Your task to perform on an android device: Go to Yahoo.com Image 0: 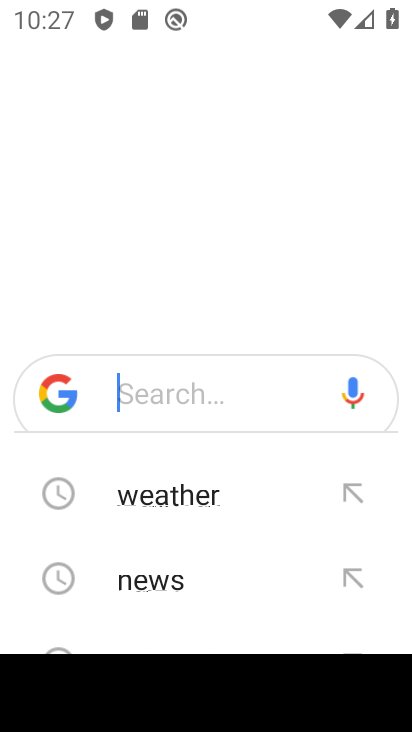
Step 0: type "yahoo.com"
Your task to perform on an android device: Go to Yahoo.com Image 1: 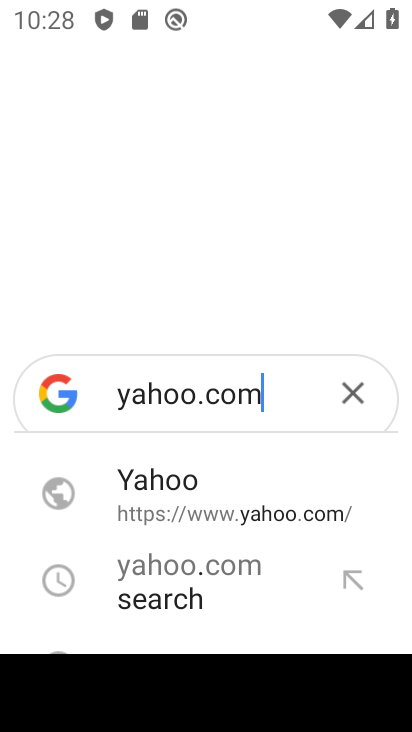
Step 1: click (215, 529)
Your task to perform on an android device: Go to Yahoo.com Image 2: 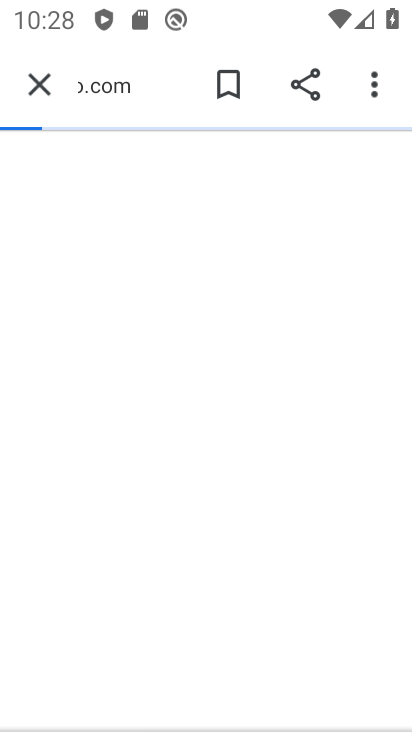
Step 2: task complete